Your task to perform on an android device: Open the Play Movies app and select the watchlist tab. Image 0: 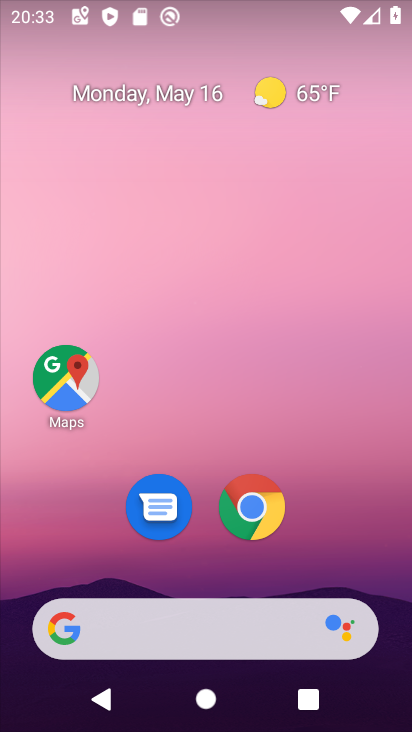
Step 0: drag from (171, 601) to (341, 30)
Your task to perform on an android device: Open the Play Movies app and select the watchlist tab. Image 1: 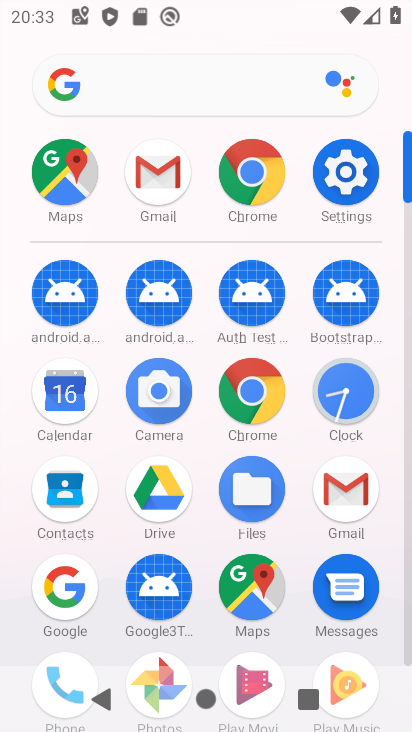
Step 1: click (237, 659)
Your task to perform on an android device: Open the Play Movies app and select the watchlist tab. Image 2: 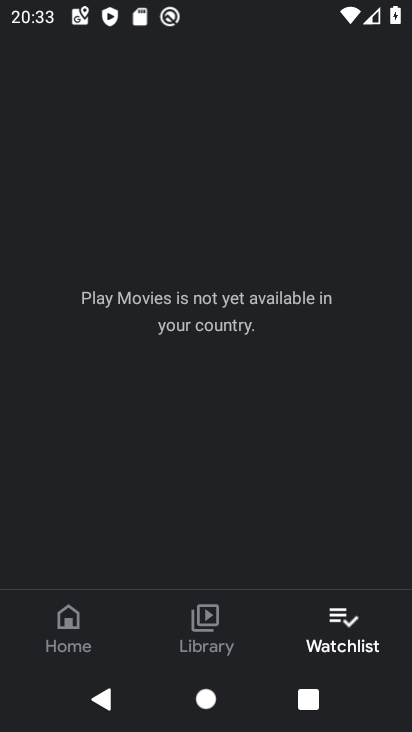
Step 2: task complete